Your task to perform on an android device: turn on the 12-hour format for clock Image 0: 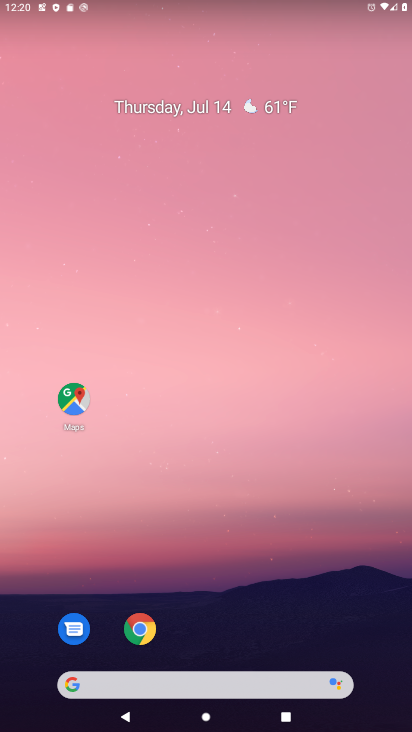
Step 0: click (310, 546)
Your task to perform on an android device: turn on the 12-hour format for clock Image 1: 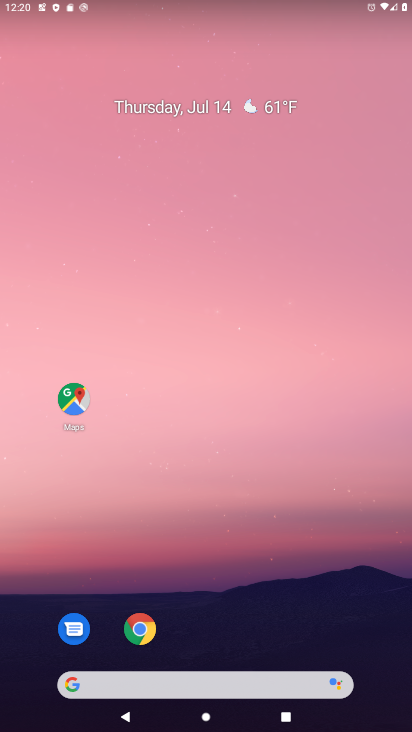
Step 1: drag from (253, 580) to (153, 104)
Your task to perform on an android device: turn on the 12-hour format for clock Image 2: 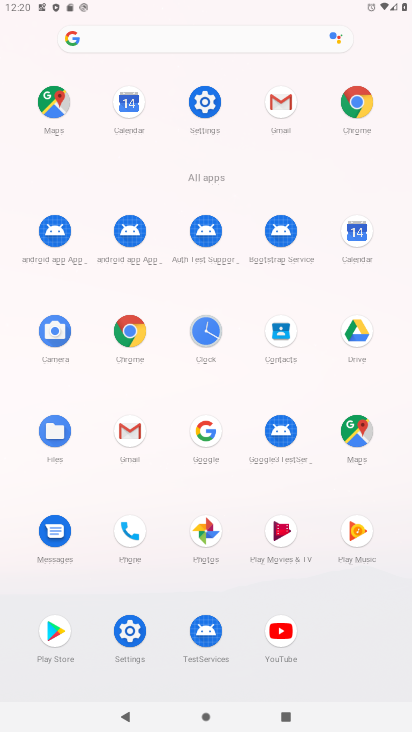
Step 2: click (205, 335)
Your task to perform on an android device: turn on the 12-hour format for clock Image 3: 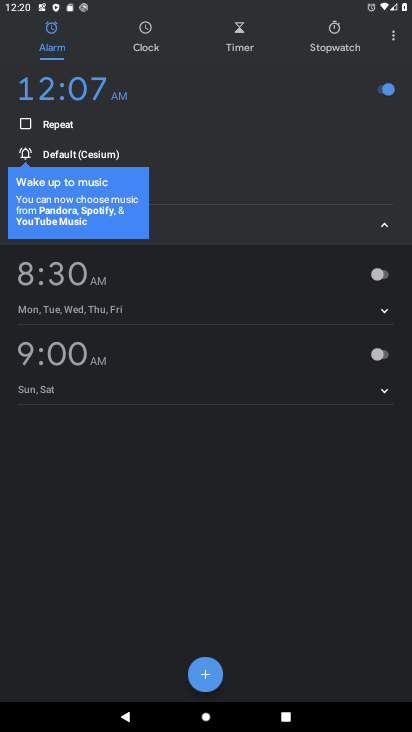
Step 3: click (393, 39)
Your task to perform on an android device: turn on the 12-hour format for clock Image 4: 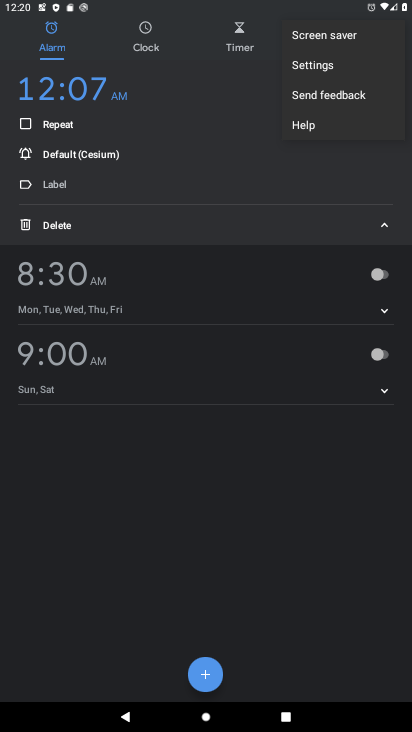
Step 4: click (325, 64)
Your task to perform on an android device: turn on the 12-hour format for clock Image 5: 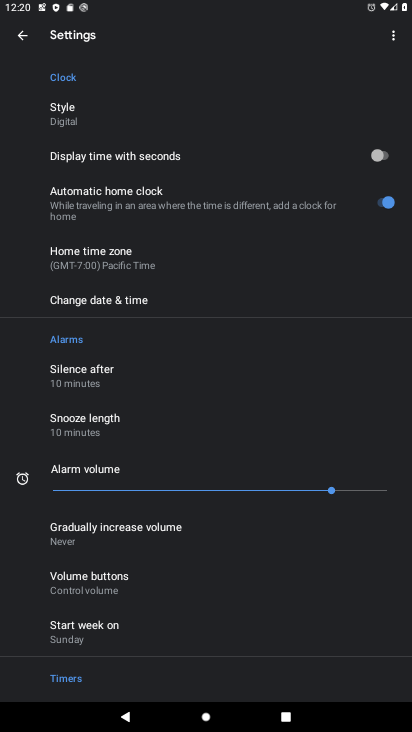
Step 5: click (127, 299)
Your task to perform on an android device: turn on the 12-hour format for clock Image 6: 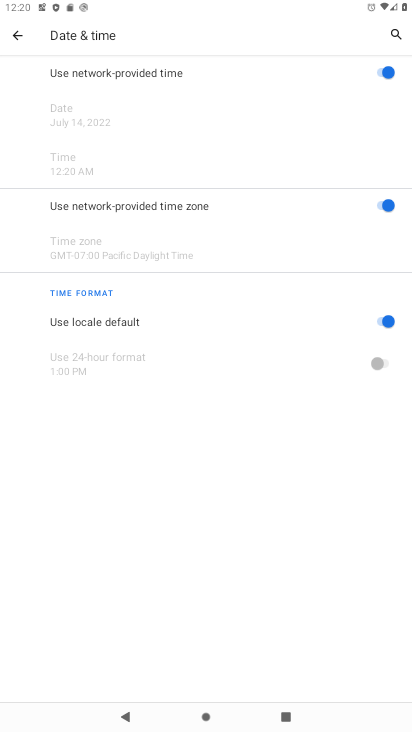
Step 6: task complete